Your task to perform on an android device: Open Google Image 0: 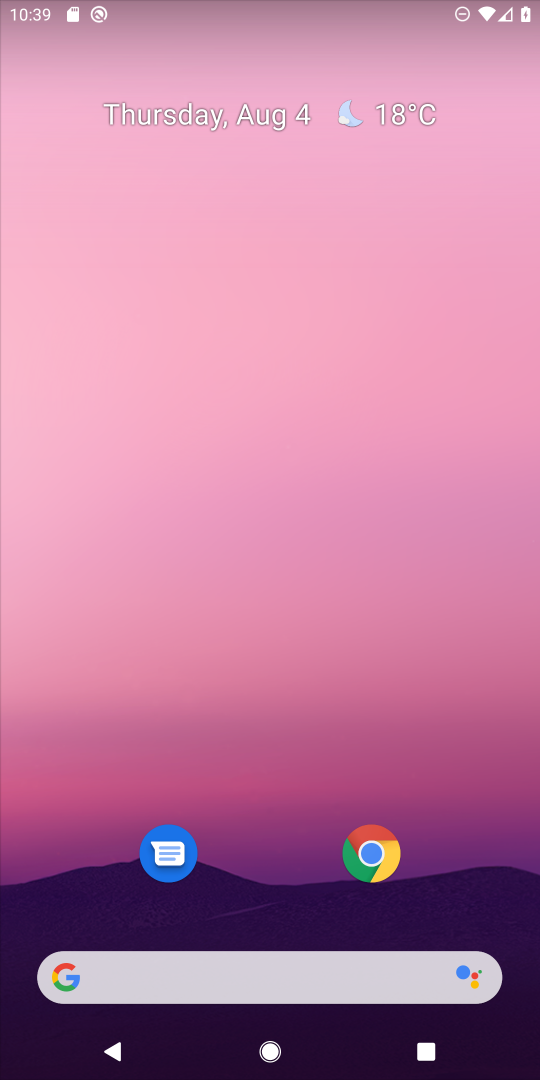
Step 0: drag from (284, 923) to (311, 73)
Your task to perform on an android device: Open Google Image 1: 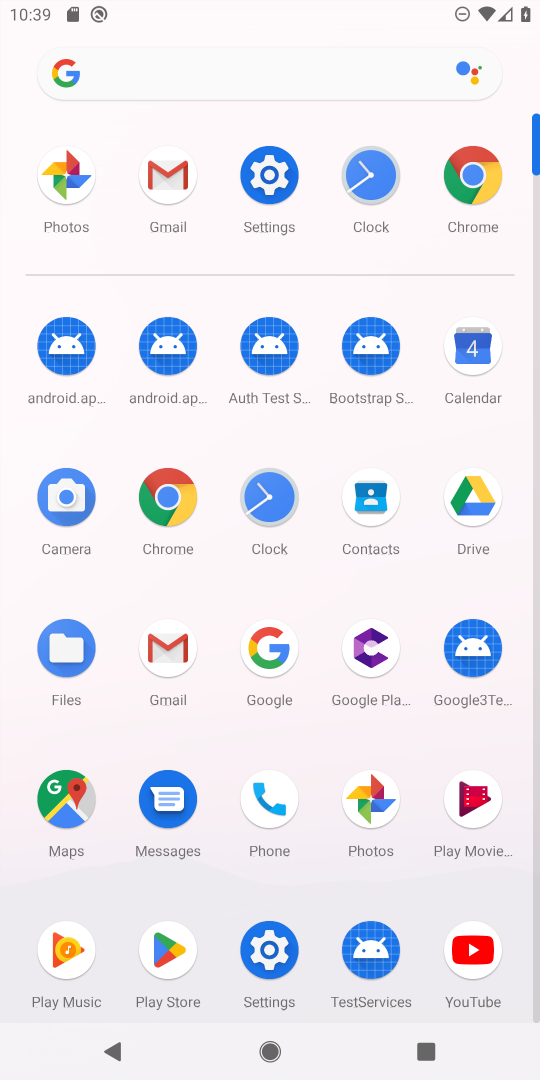
Step 1: click (273, 653)
Your task to perform on an android device: Open Google Image 2: 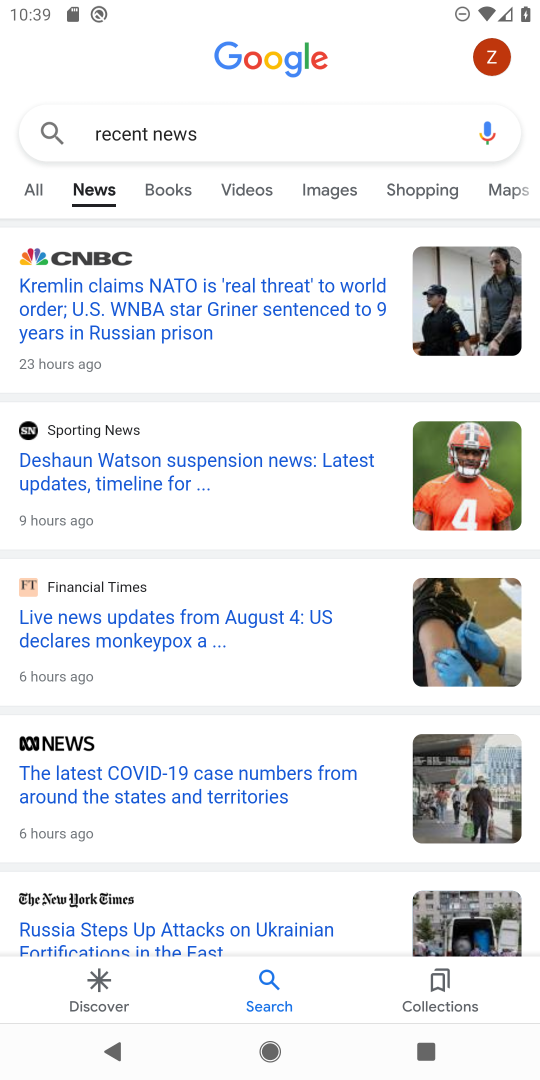
Step 2: click (48, 192)
Your task to perform on an android device: Open Google Image 3: 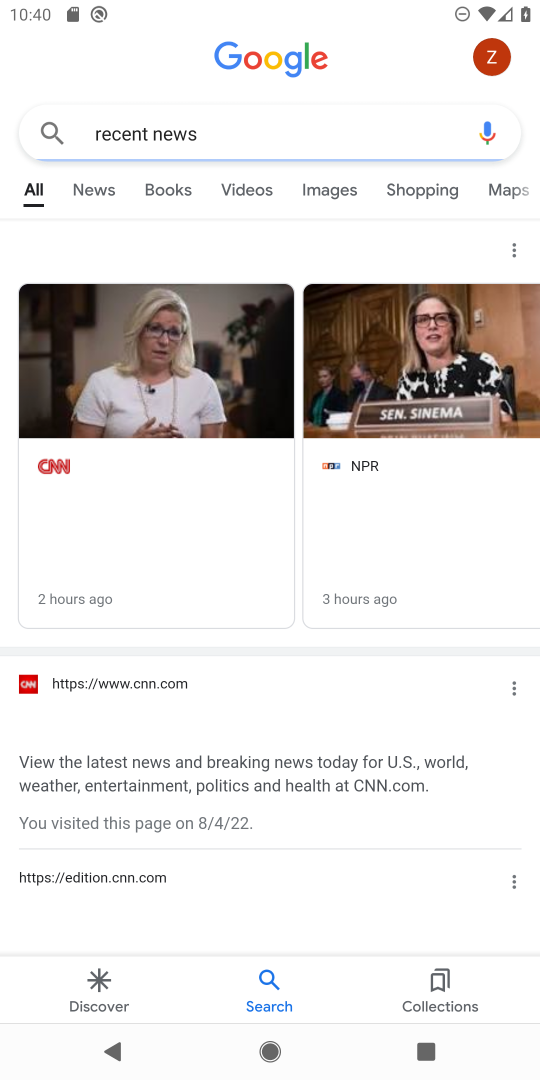
Step 3: task complete